Your task to perform on an android device: Go to display settings Image 0: 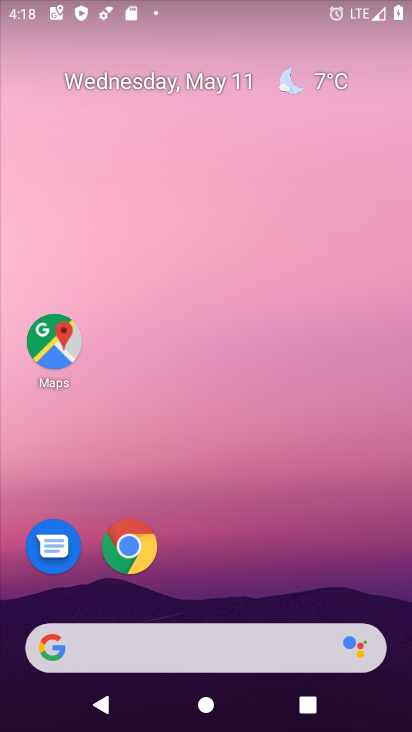
Step 0: drag from (334, 616) to (339, 7)
Your task to perform on an android device: Go to display settings Image 1: 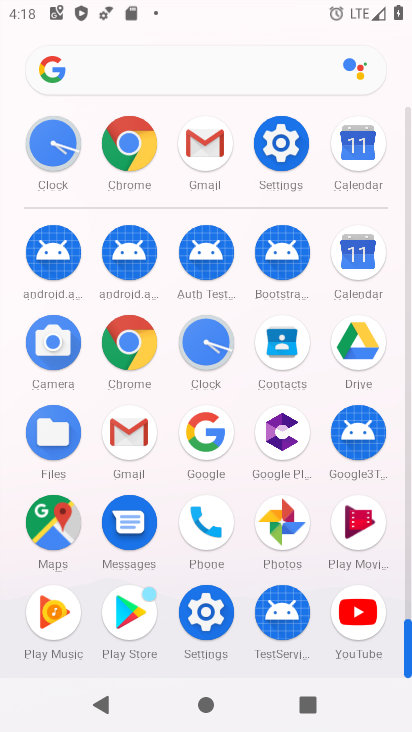
Step 1: click (282, 160)
Your task to perform on an android device: Go to display settings Image 2: 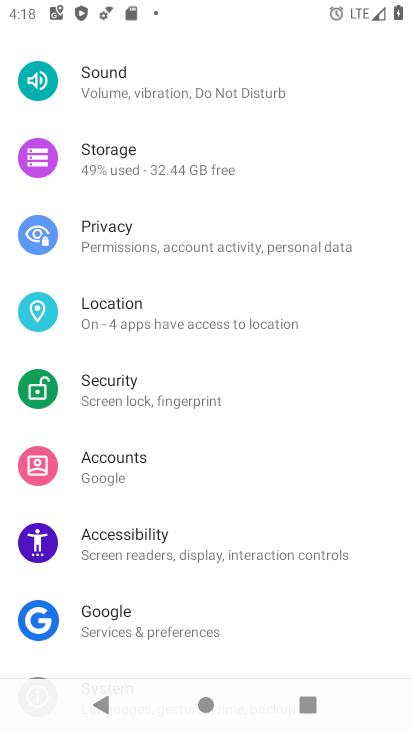
Step 2: drag from (210, 254) to (233, 700)
Your task to perform on an android device: Go to display settings Image 3: 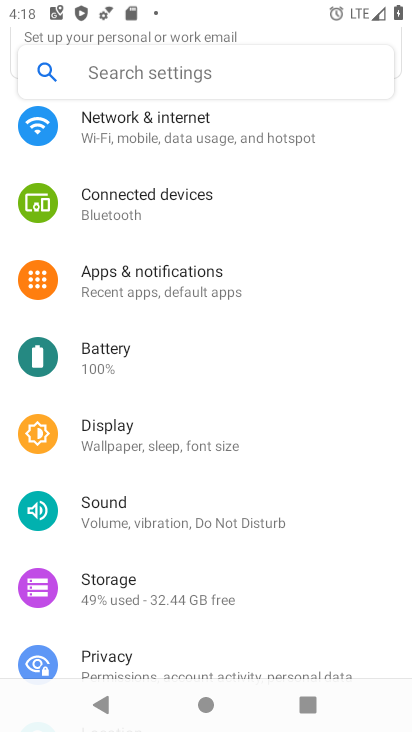
Step 3: click (136, 449)
Your task to perform on an android device: Go to display settings Image 4: 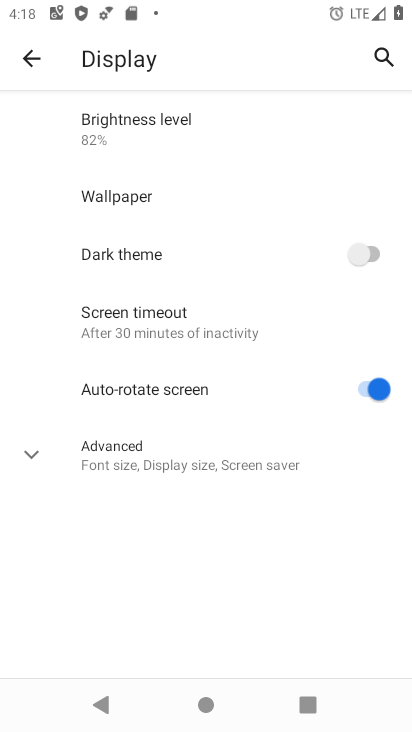
Step 4: task complete